Your task to perform on an android device: turn off notifications in google photos Image 0: 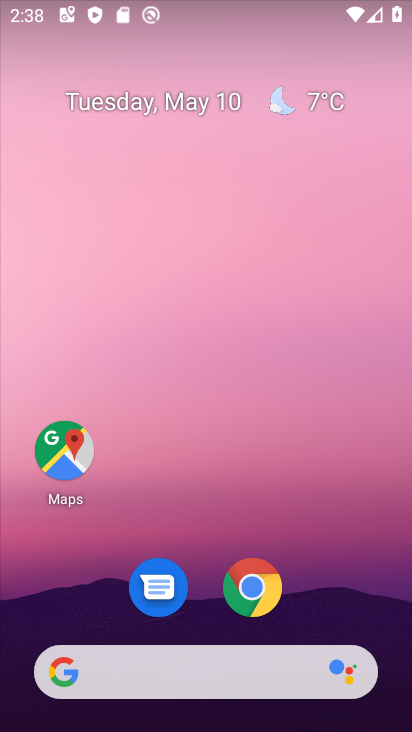
Step 0: drag from (349, 605) to (297, 147)
Your task to perform on an android device: turn off notifications in google photos Image 1: 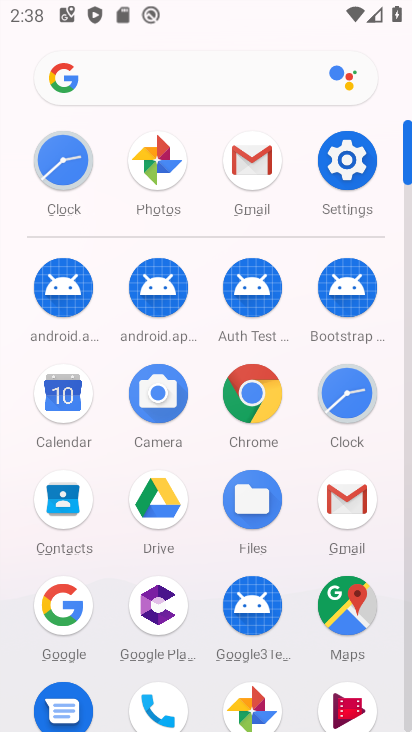
Step 1: click (244, 693)
Your task to perform on an android device: turn off notifications in google photos Image 2: 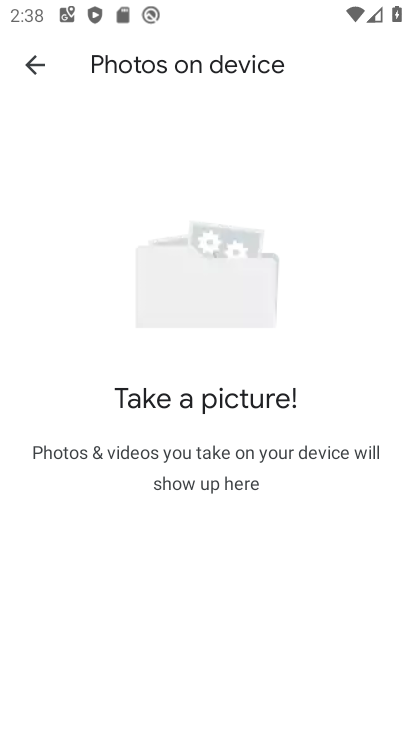
Step 2: click (29, 61)
Your task to perform on an android device: turn off notifications in google photos Image 3: 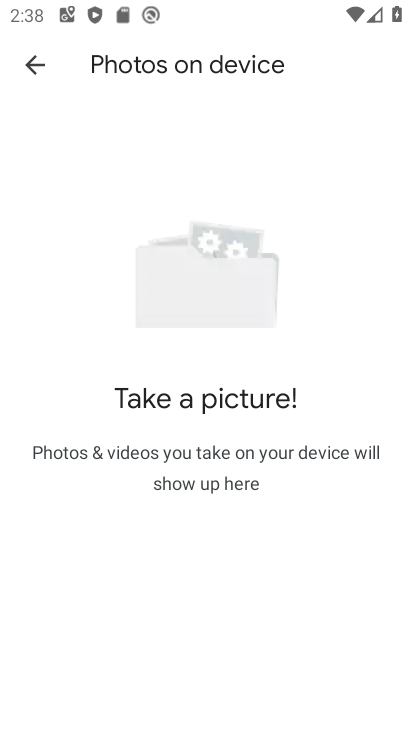
Step 3: click (29, 61)
Your task to perform on an android device: turn off notifications in google photos Image 4: 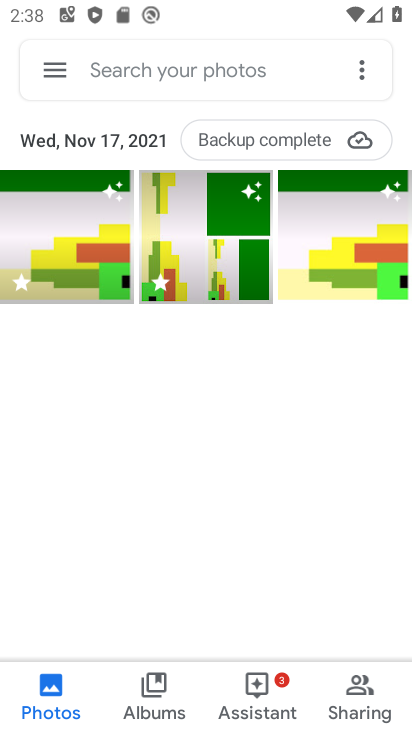
Step 4: click (41, 71)
Your task to perform on an android device: turn off notifications in google photos Image 5: 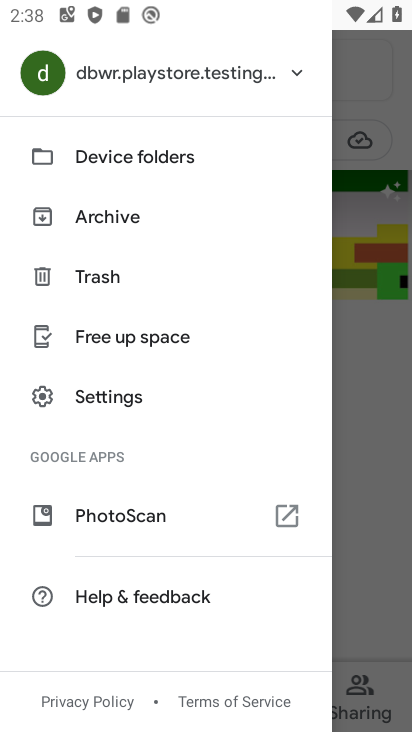
Step 5: click (126, 397)
Your task to perform on an android device: turn off notifications in google photos Image 6: 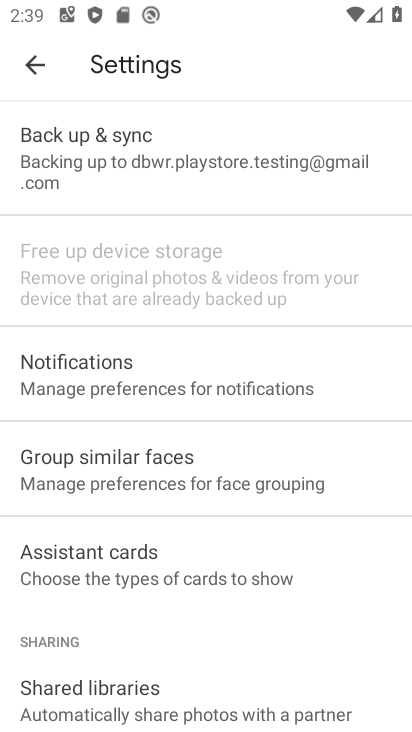
Step 6: click (140, 356)
Your task to perform on an android device: turn off notifications in google photos Image 7: 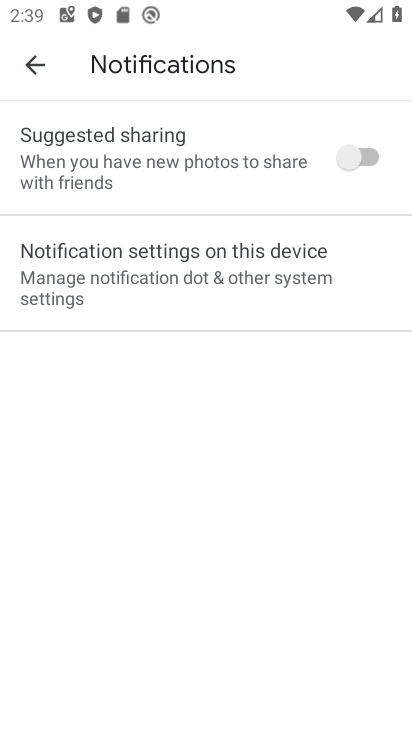
Step 7: click (123, 268)
Your task to perform on an android device: turn off notifications in google photos Image 8: 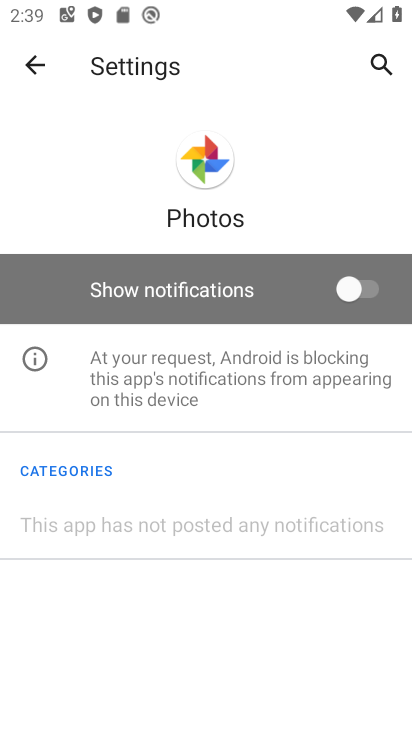
Step 8: task complete